Your task to perform on an android device: Go to Yahoo.com Image 0: 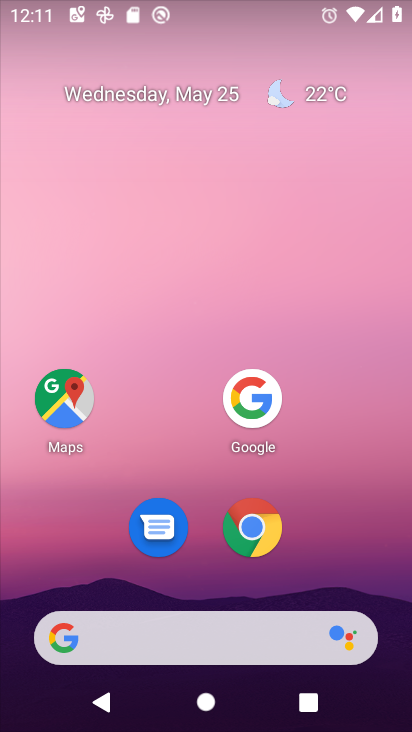
Step 0: press home button
Your task to perform on an android device: Go to Yahoo.com Image 1: 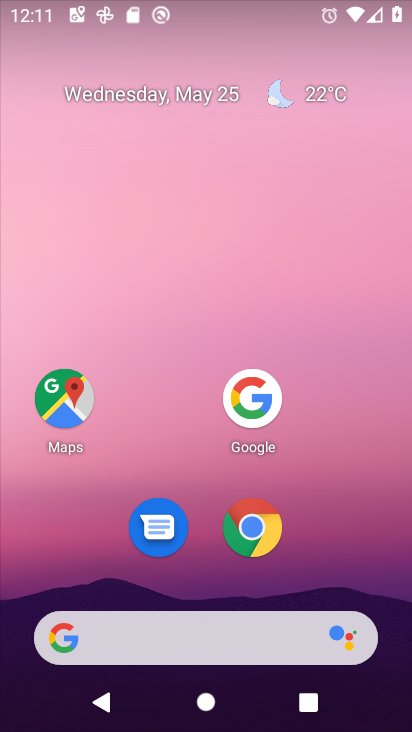
Step 1: click (248, 526)
Your task to perform on an android device: Go to Yahoo.com Image 2: 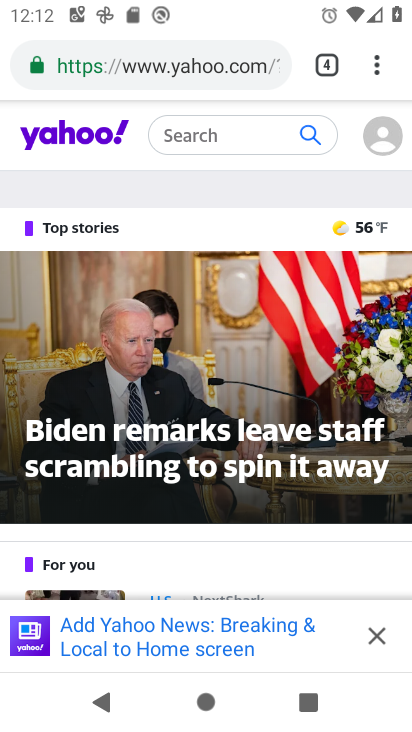
Step 2: task complete